Your task to perform on an android device: make emails show in primary in the gmail app Image 0: 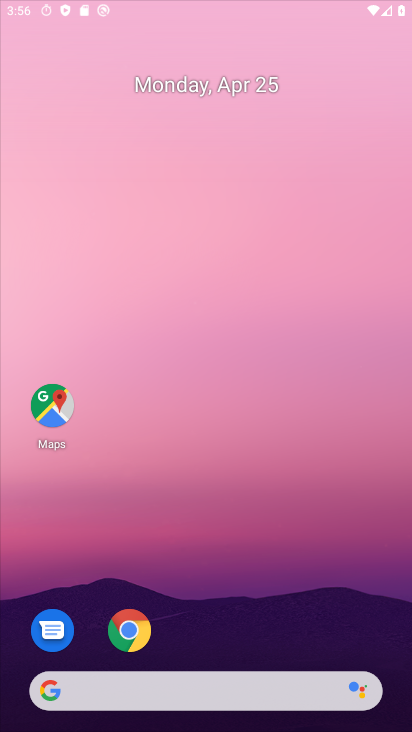
Step 0: drag from (325, 539) to (331, 133)
Your task to perform on an android device: make emails show in primary in the gmail app Image 1: 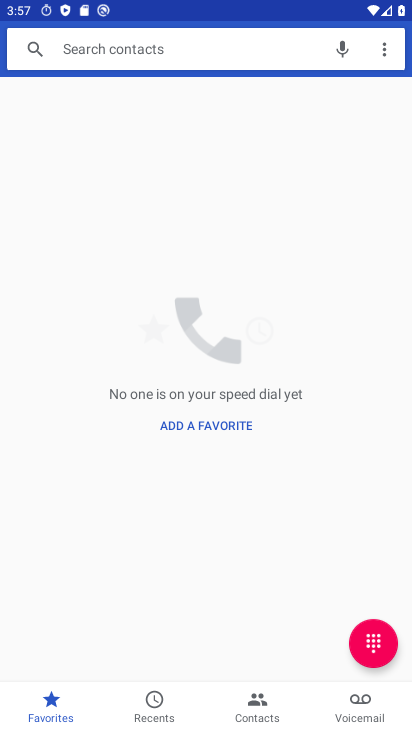
Step 1: press home button
Your task to perform on an android device: make emails show in primary in the gmail app Image 2: 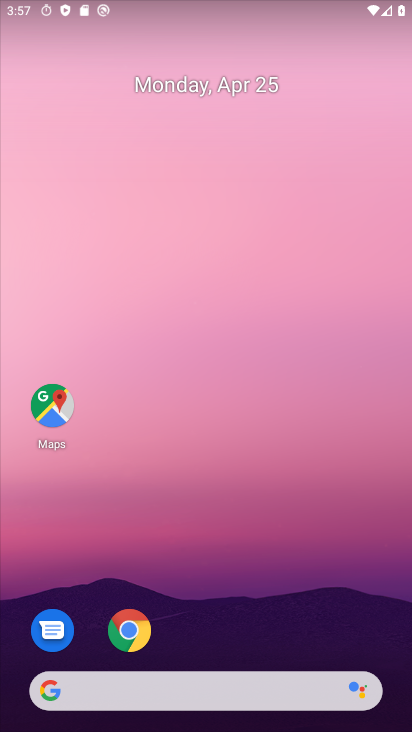
Step 2: drag from (304, 440) to (329, 147)
Your task to perform on an android device: make emails show in primary in the gmail app Image 3: 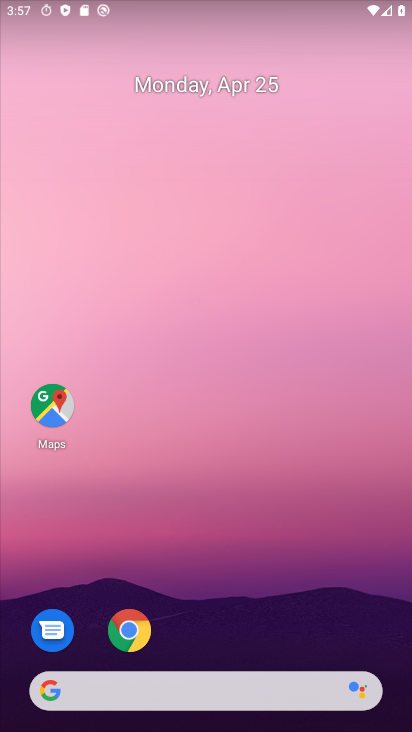
Step 3: drag from (329, 566) to (301, 135)
Your task to perform on an android device: make emails show in primary in the gmail app Image 4: 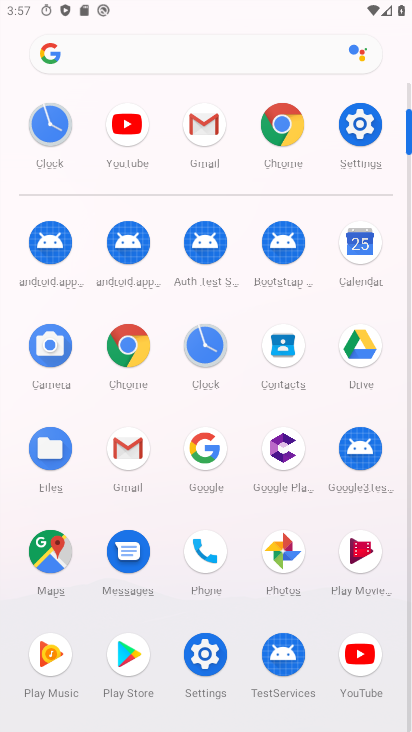
Step 4: click (204, 123)
Your task to perform on an android device: make emails show in primary in the gmail app Image 5: 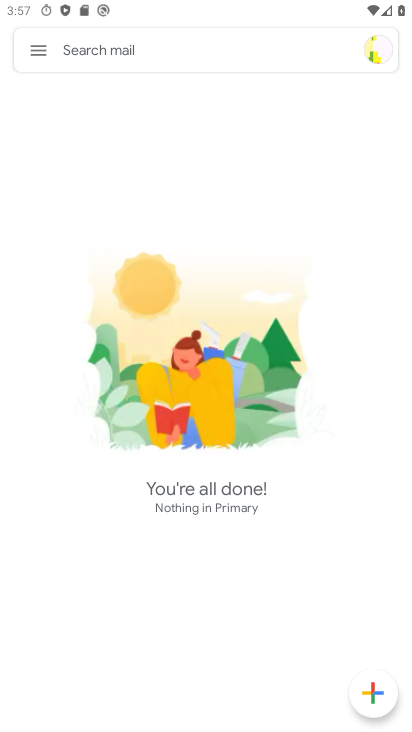
Step 5: click (40, 45)
Your task to perform on an android device: make emails show in primary in the gmail app Image 6: 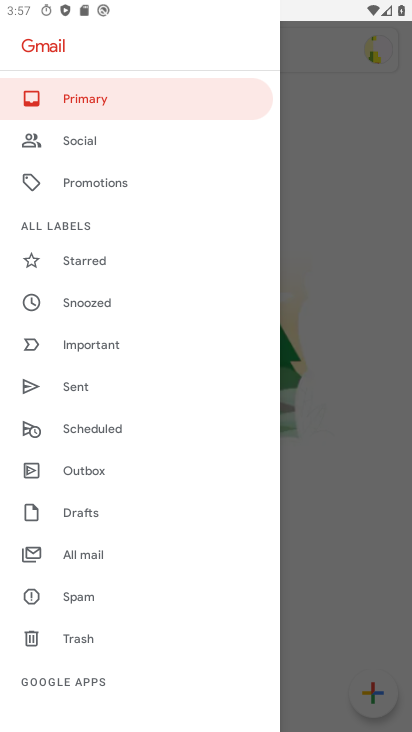
Step 6: drag from (132, 627) to (153, 149)
Your task to perform on an android device: make emails show in primary in the gmail app Image 7: 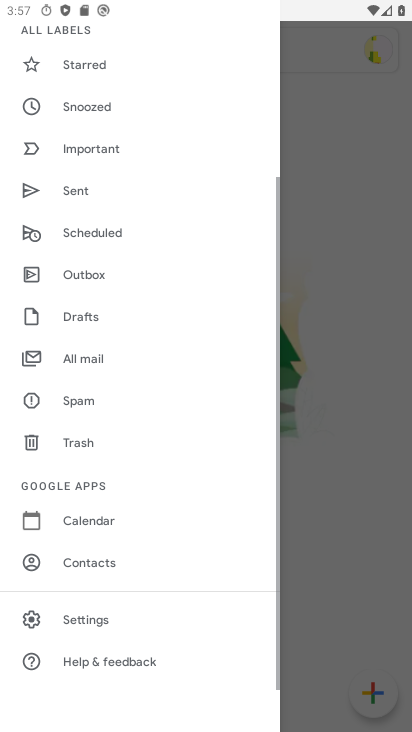
Step 7: click (69, 618)
Your task to perform on an android device: make emails show in primary in the gmail app Image 8: 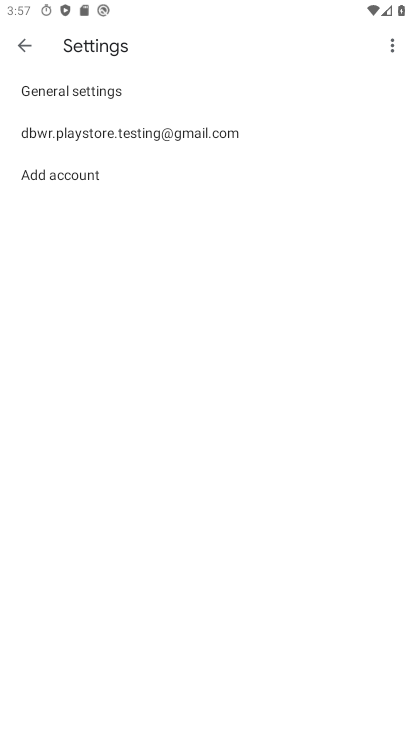
Step 8: click (204, 136)
Your task to perform on an android device: make emails show in primary in the gmail app Image 9: 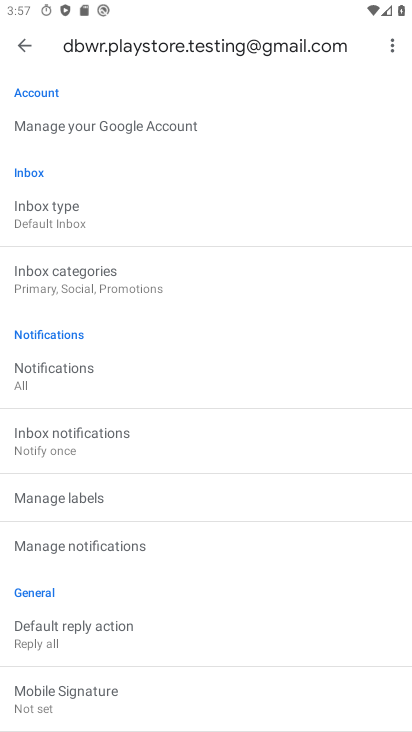
Step 9: task complete